Your task to perform on an android device: Turn on the flashlight Image 0: 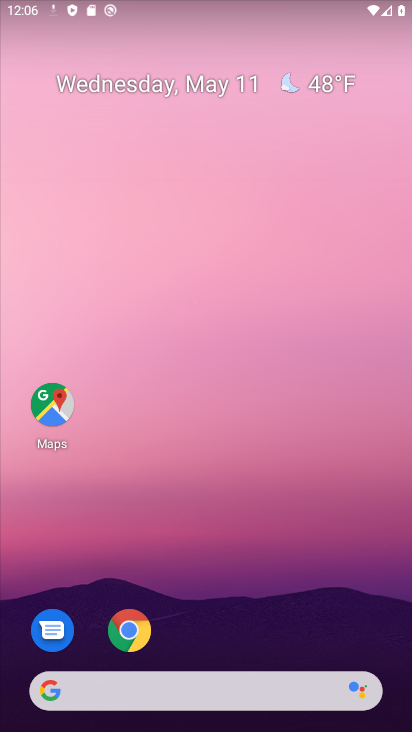
Step 0: drag from (167, 659) to (144, 31)
Your task to perform on an android device: Turn on the flashlight Image 1: 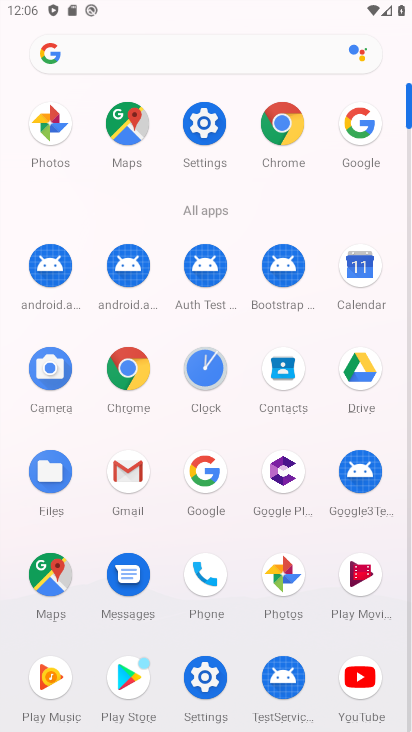
Step 1: click (199, 130)
Your task to perform on an android device: Turn on the flashlight Image 2: 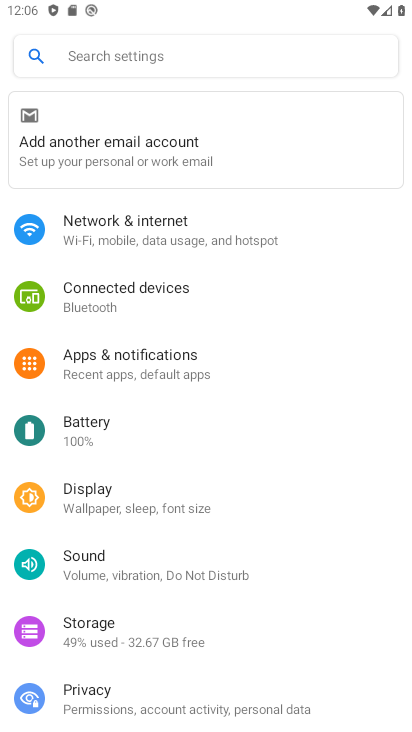
Step 2: click (106, 63)
Your task to perform on an android device: Turn on the flashlight Image 3: 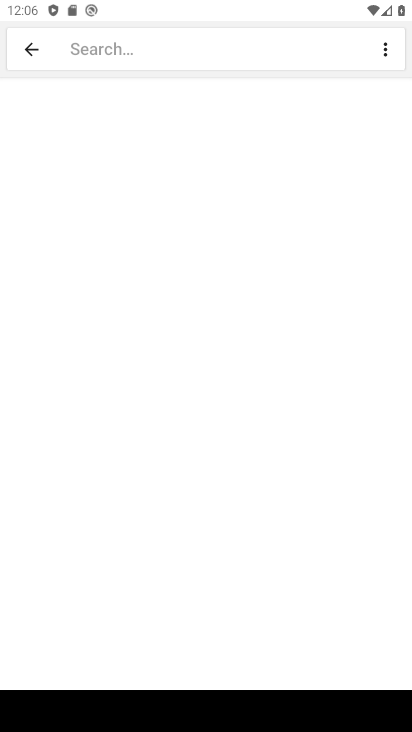
Step 3: type "flashlight"
Your task to perform on an android device: Turn on the flashlight Image 4: 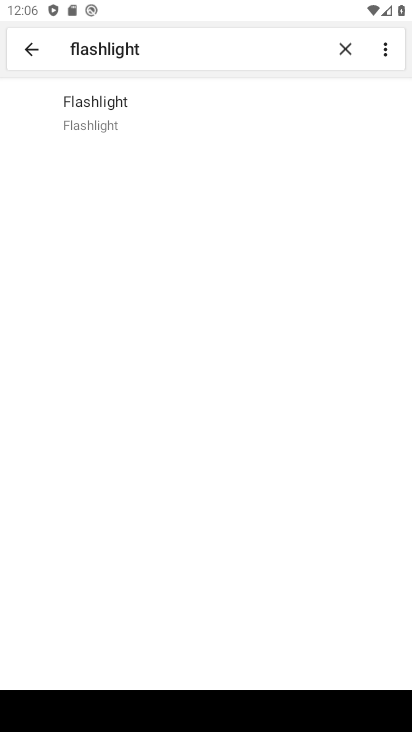
Step 4: click (194, 128)
Your task to perform on an android device: Turn on the flashlight Image 5: 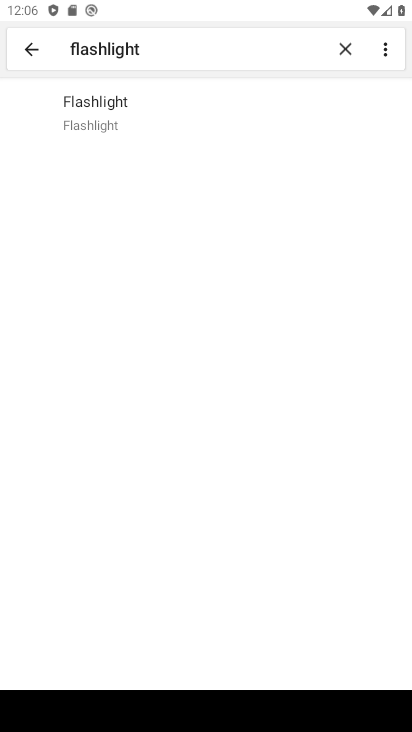
Step 5: task complete